Your task to perform on an android device: Search for the most popular coffee table on Crate & Barrel Image 0: 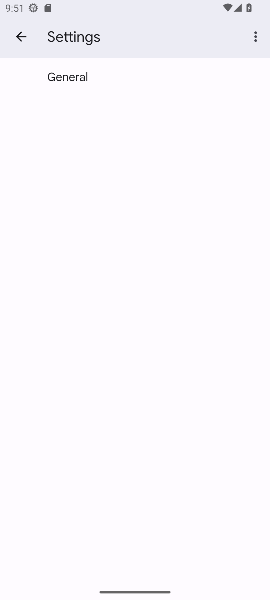
Step 0: press home button
Your task to perform on an android device: Search for the most popular coffee table on Crate & Barrel Image 1: 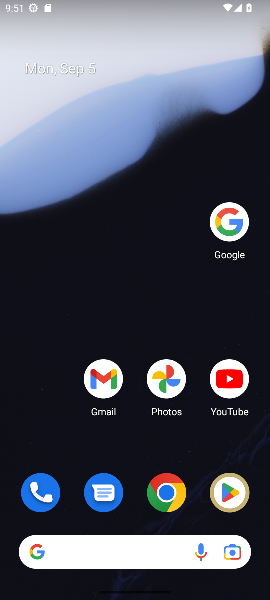
Step 1: click (225, 218)
Your task to perform on an android device: Search for the most popular coffee table on Crate & Barrel Image 2: 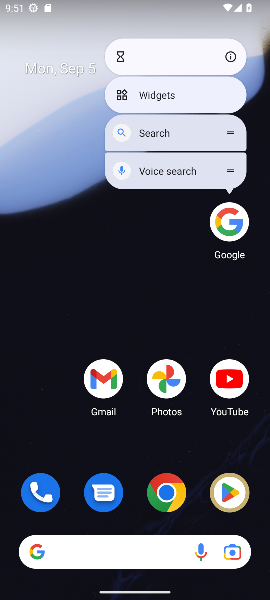
Step 2: click (225, 218)
Your task to perform on an android device: Search for the most popular coffee table on Crate & Barrel Image 3: 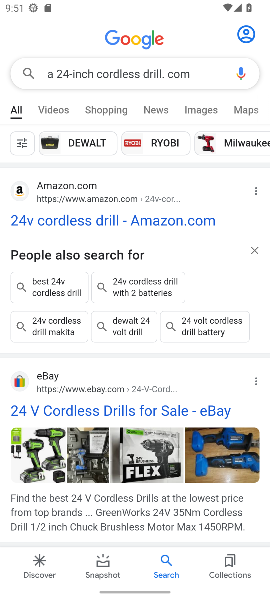
Step 3: click (152, 70)
Your task to perform on an android device: Search for the most popular coffee table on Crate & Barrel Image 4: 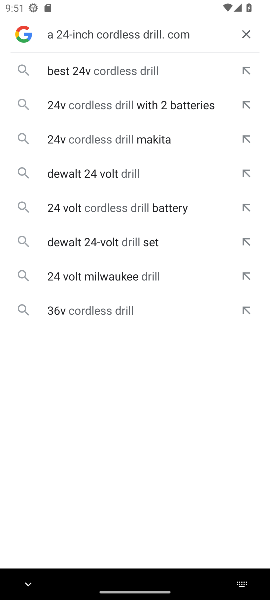
Step 4: click (243, 27)
Your task to perform on an android device: Search for the most popular coffee table on Crate & Barrel Image 5: 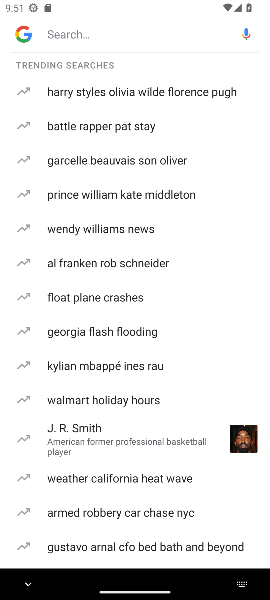
Step 5: click (145, 34)
Your task to perform on an android device: Search for the most popular coffee table on Crate & Barrel Image 6: 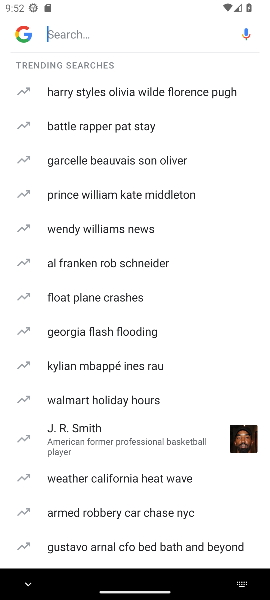
Step 6: type " the most popular coffee table on Crate & Barrel "
Your task to perform on an android device: Search for the most popular coffee table on Crate & Barrel Image 7: 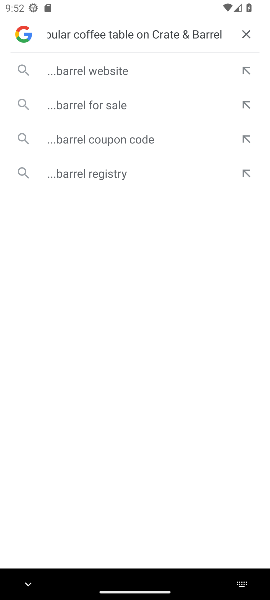
Step 7: click (87, 73)
Your task to perform on an android device: Search for the most popular coffee table on Crate & Barrel Image 8: 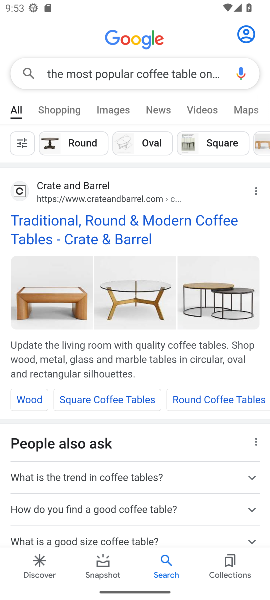
Step 8: task complete